Your task to perform on an android device: Go to display settings Image 0: 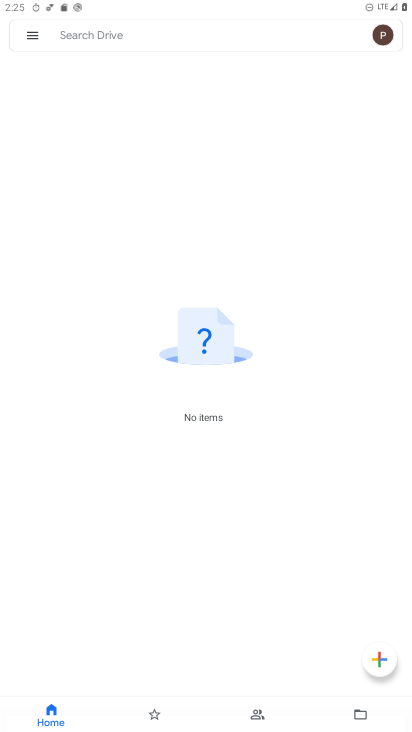
Step 0: press home button
Your task to perform on an android device: Go to display settings Image 1: 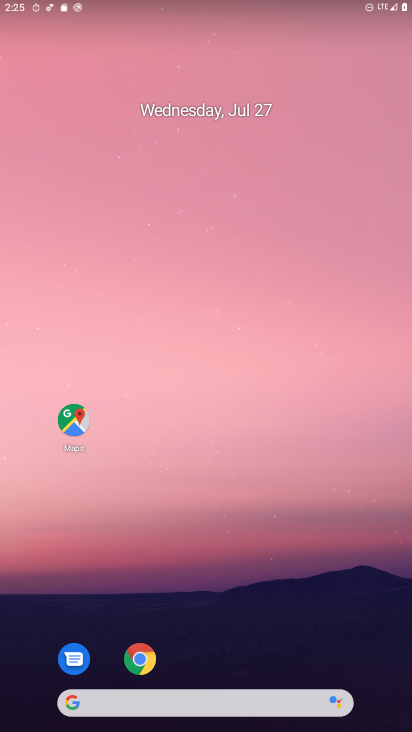
Step 1: drag from (313, 633) to (291, 135)
Your task to perform on an android device: Go to display settings Image 2: 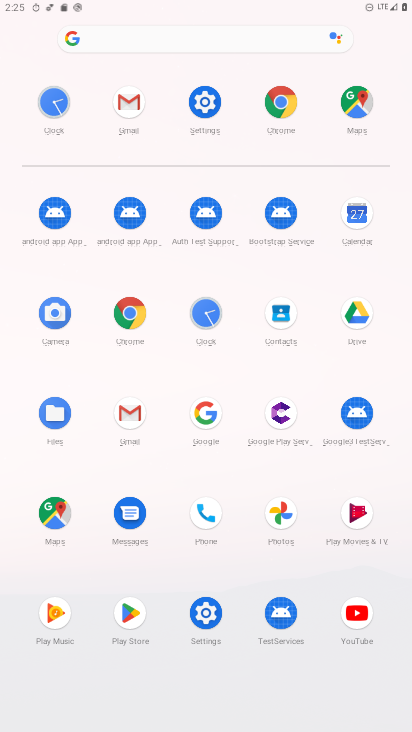
Step 2: click (209, 95)
Your task to perform on an android device: Go to display settings Image 3: 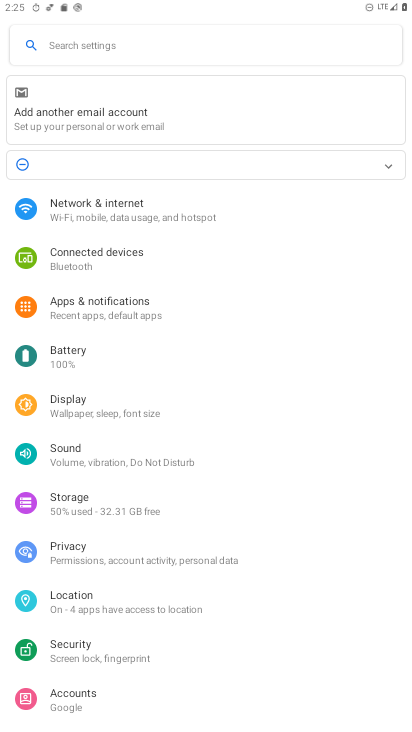
Step 3: click (103, 412)
Your task to perform on an android device: Go to display settings Image 4: 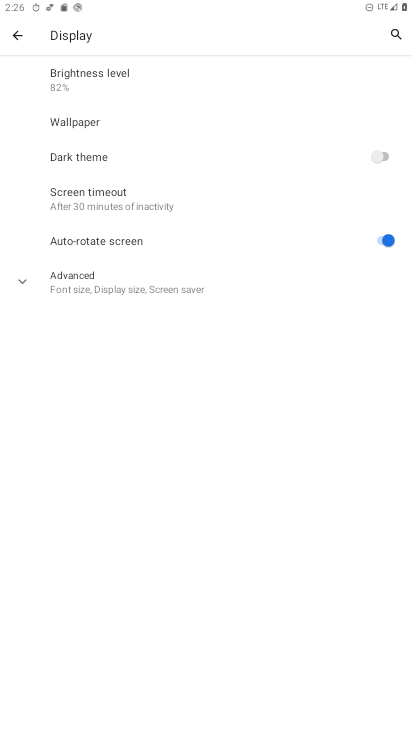
Step 4: task complete